Your task to perform on an android device: Open privacy settings Image 0: 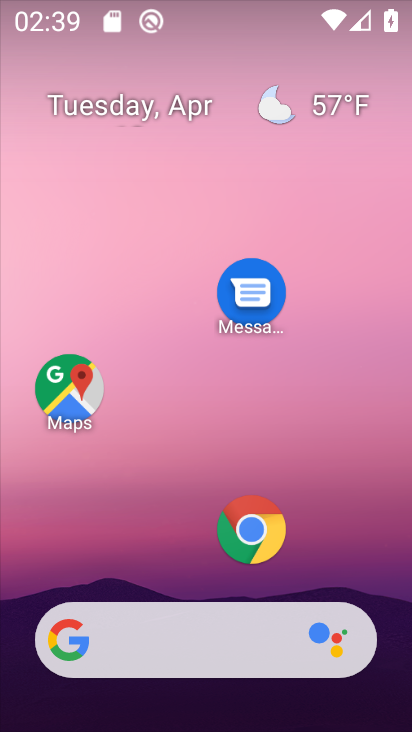
Step 0: click (253, 535)
Your task to perform on an android device: Open privacy settings Image 1: 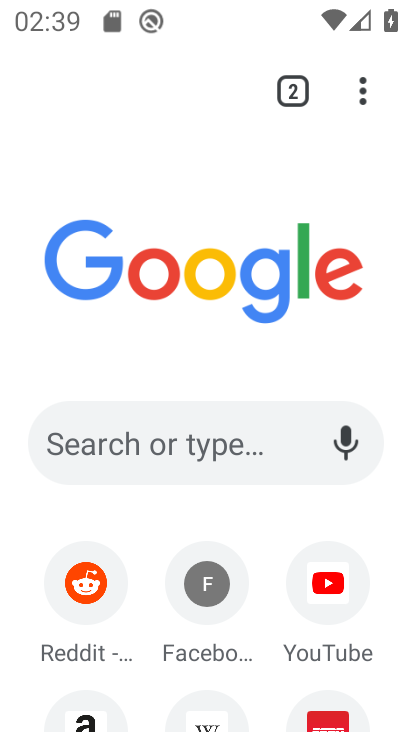
Step 1: click (362, 103)
Your task to perform on an android device: Open privacy settings Image 2: 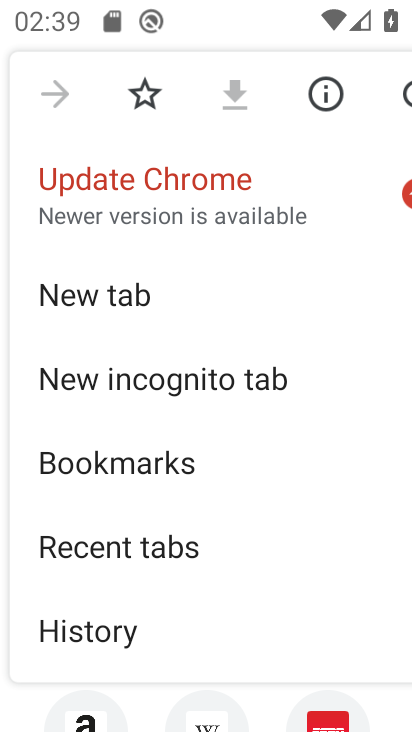
Step 2: drag from (290, 537) to (226, 98)
Your task to perform on an android device: Open privacy settings Image 3: 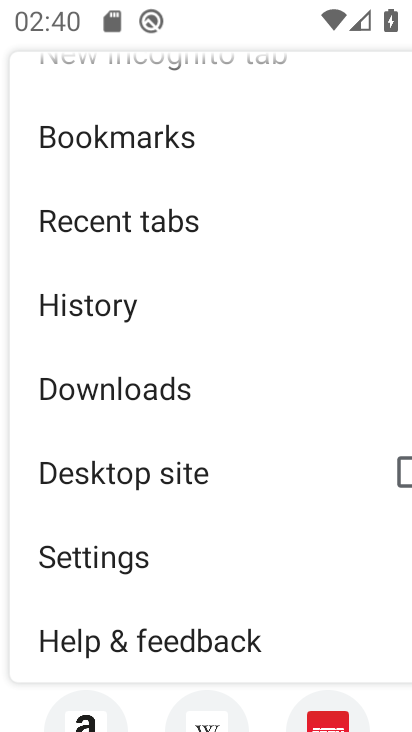
Step 3: click (113, 555)
Your task to perform on an android device: Open privacy settings Image 4: 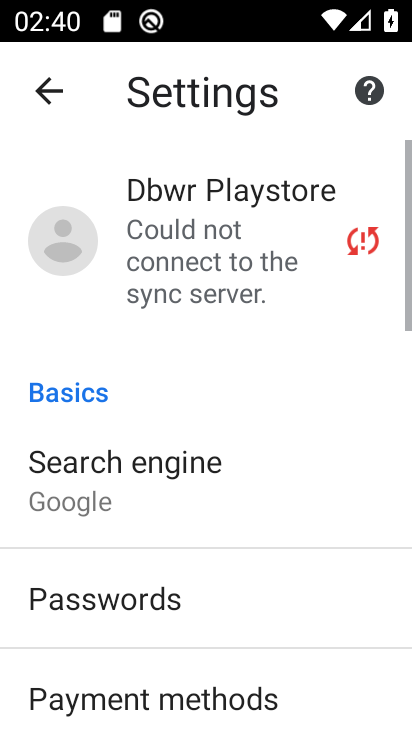
Step 4: drag from (252, 599) to (247, 222)
Your task to perform on an android device: Open privacy settings Image 5: 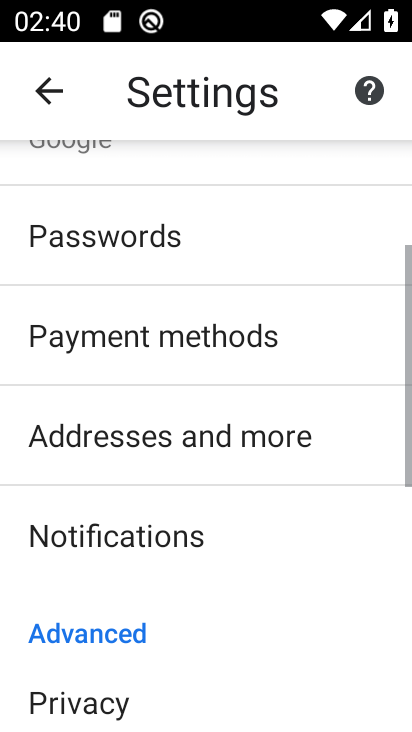
Step 5: drag from (149, 612) to (172, 403)
Your task to perform on an android device: Open privacy settings Image 6: 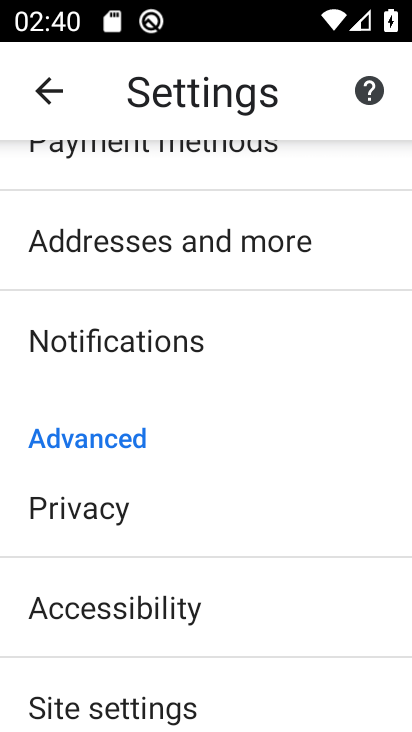
Step 6: click (125, 512)
Your task to perform on an android device: Open privacy settings Image 7: 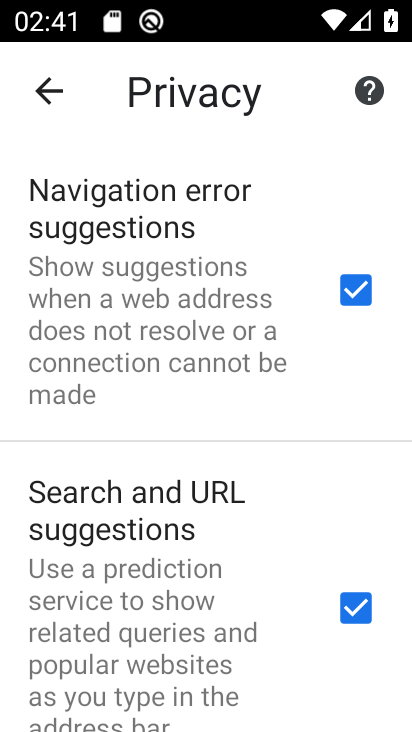
Step 7: task complete